Your task to perform on an android device: Empty the shopping cart on bestbuy. Image 0: 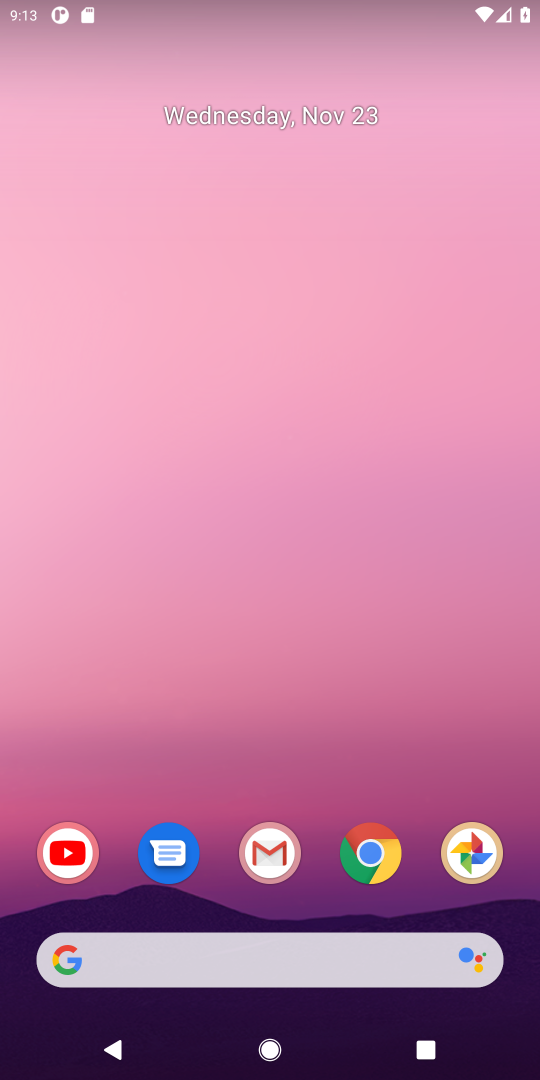
Step 0: click (371, 847)
Your task to perform on an android device: Empty the shopping cart on bestbuy. Image 1: 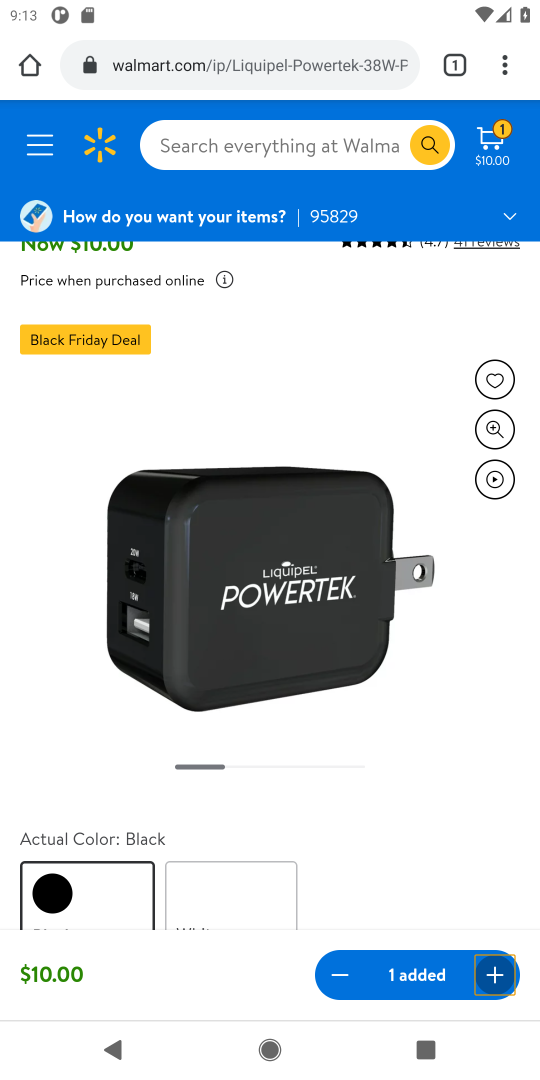
Step 1: click (201, 69)
Your task to perform on an android device: Empty the shopping cart on bestbuy. Image 2: 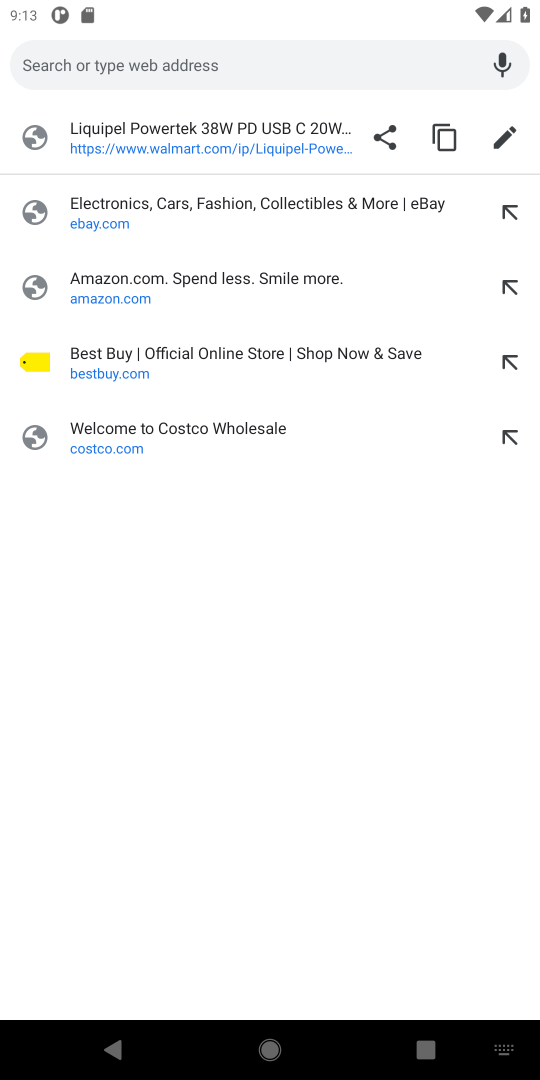
Step 2: click (96, 353)
Your task to perform on an android device: Empty the shopping cart on bestbuy. Image 3: 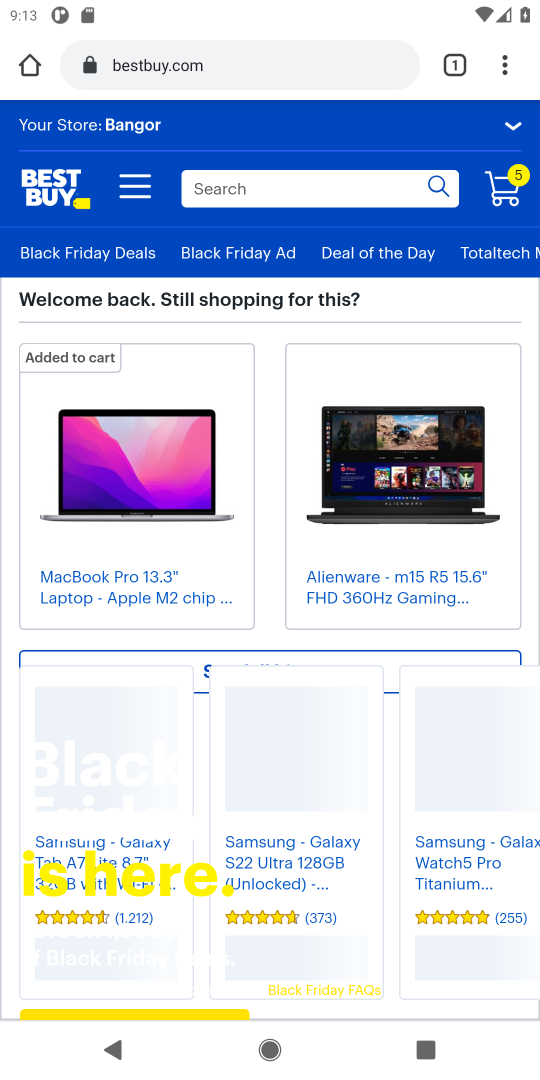
Step 3: click (506, 196)
Your task to perform on an android device: Empty the shopping cart on bestbuy. Image 4: 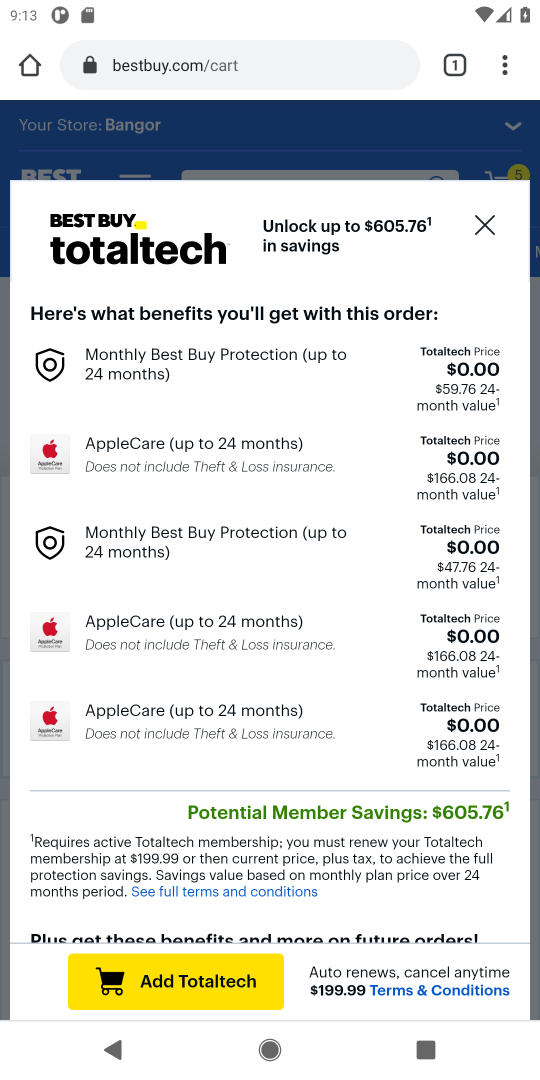
Step 4: click (486, 224)
Your task to perform on an android device: Empty the shopping cart on bestbuy. Image 5: 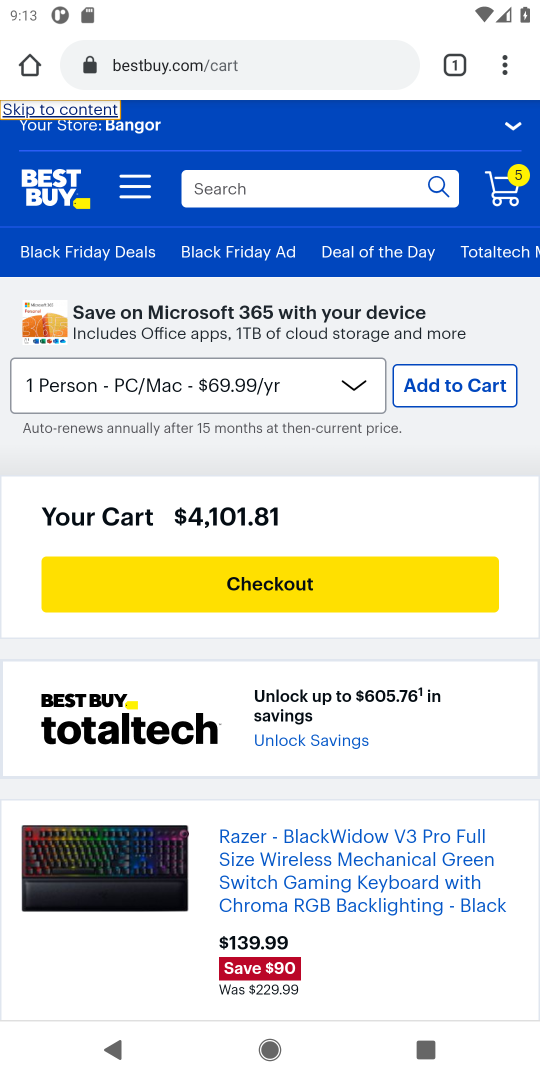
Step 5: drag from (168, 732) to (154, 409)
Your task to perform on an android device: Empty the shopping cart on bestbuy. Image 6: 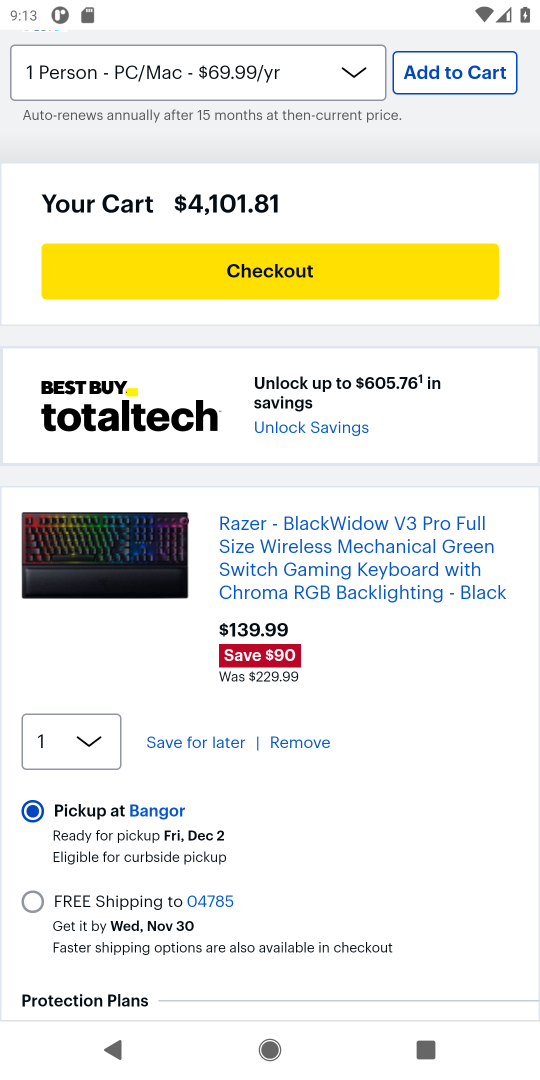
Step 6: click (302, 739)
Your task to perform on an android device: Empty the shopping cart on bestbuy. Image 7: 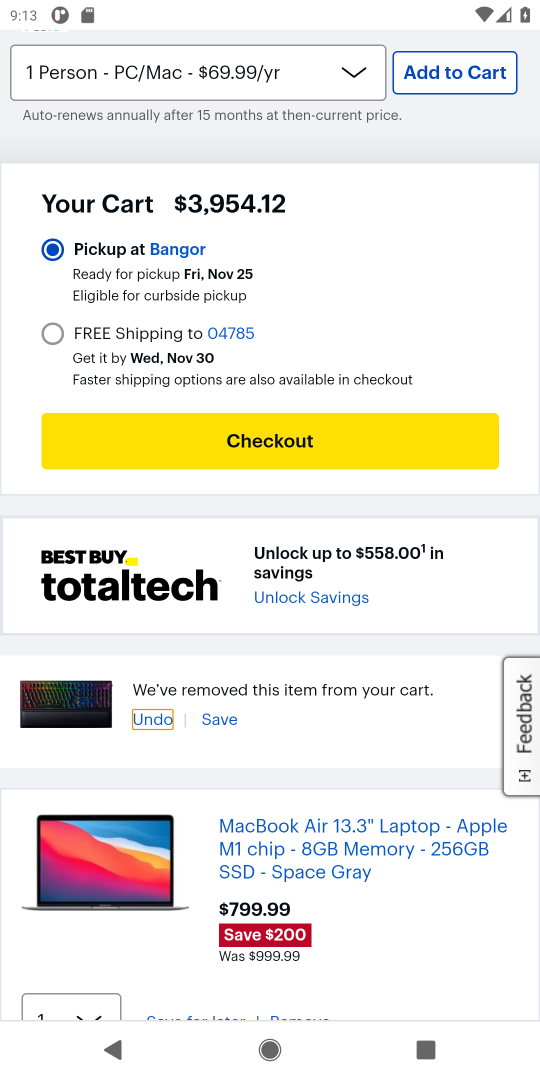
Step 7: drag from (302, 739) to (288, 387)
Your task to perform on an android device: Empty the shopping cart on bestbuy. Image 8: 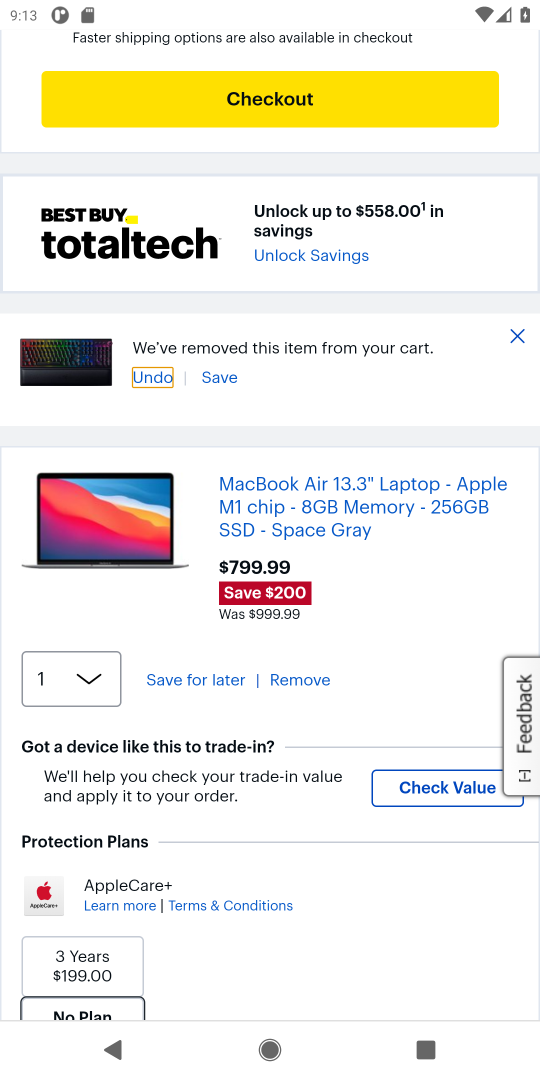
Step 8: click (304, 673)
Your task to perform on an android device: Empty the shopping cart on bestbuy. Image 9: 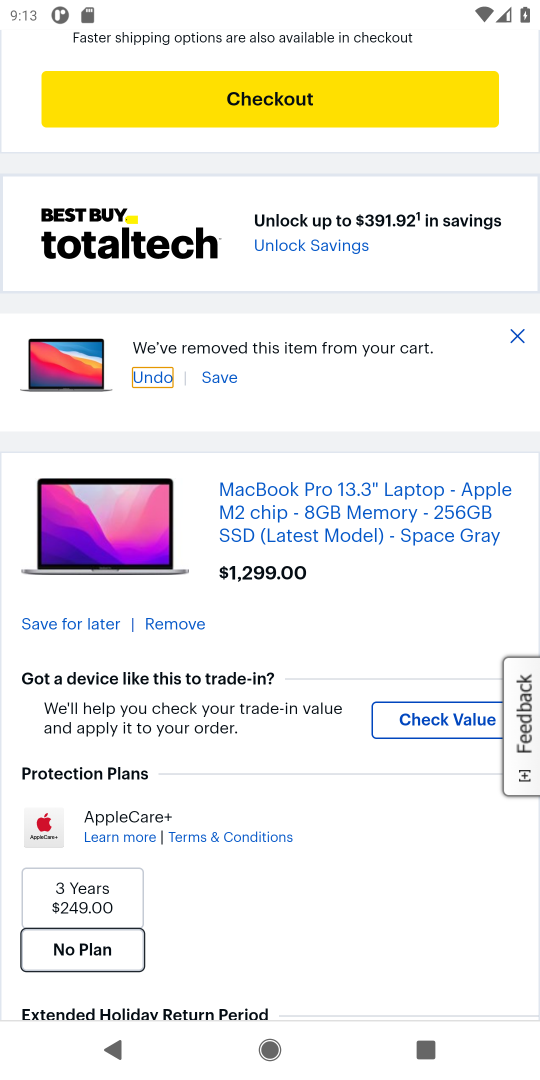
Step 9: drag from (207, 749) to (205, 590)
Your task to perform on an android device: Empty the shopping cart on bestbuy. Image 10: 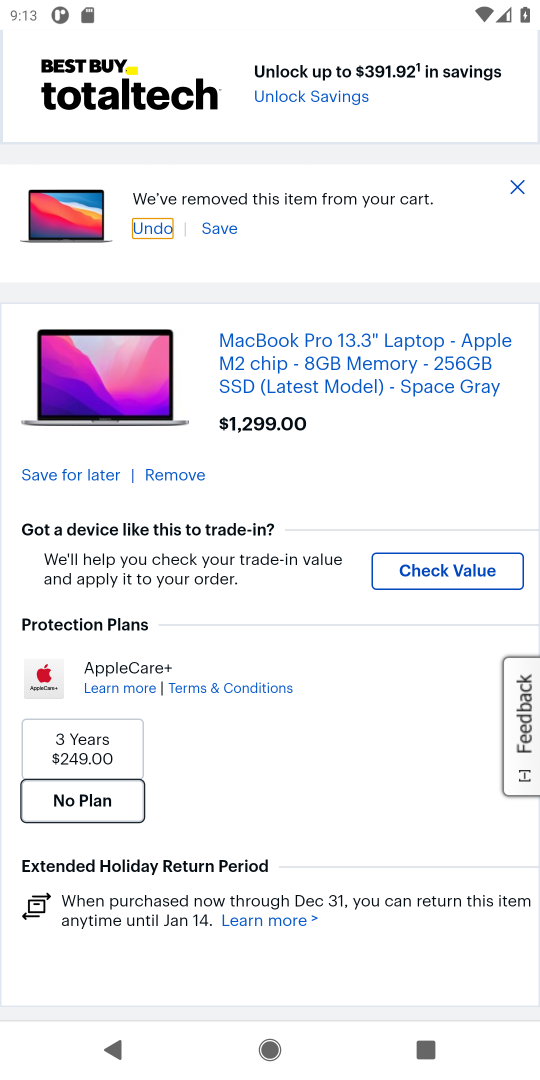
Step 10: click (163, 474)
Your task to perform on an android device: Empty the shopping cart on bestbuy. Image 11: 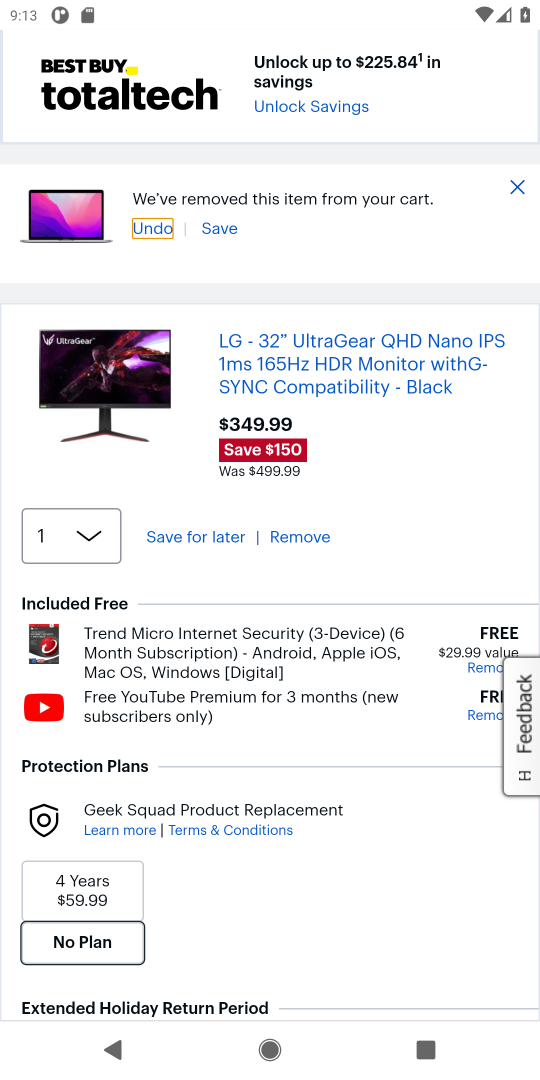
Step 11: click (300, 533)
Your task to perform on an android device: Empty the shopping cart on bestbuy. Image 12: 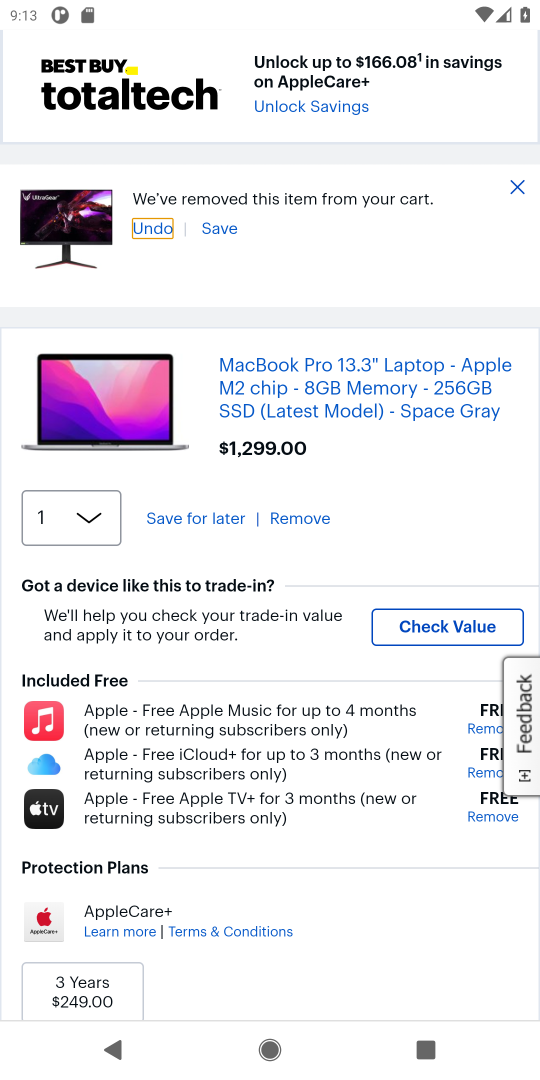
Step 12: click (298, 522)
Your task to perform on an android device: Empty the shopping cart on bestbuy. Image 13: 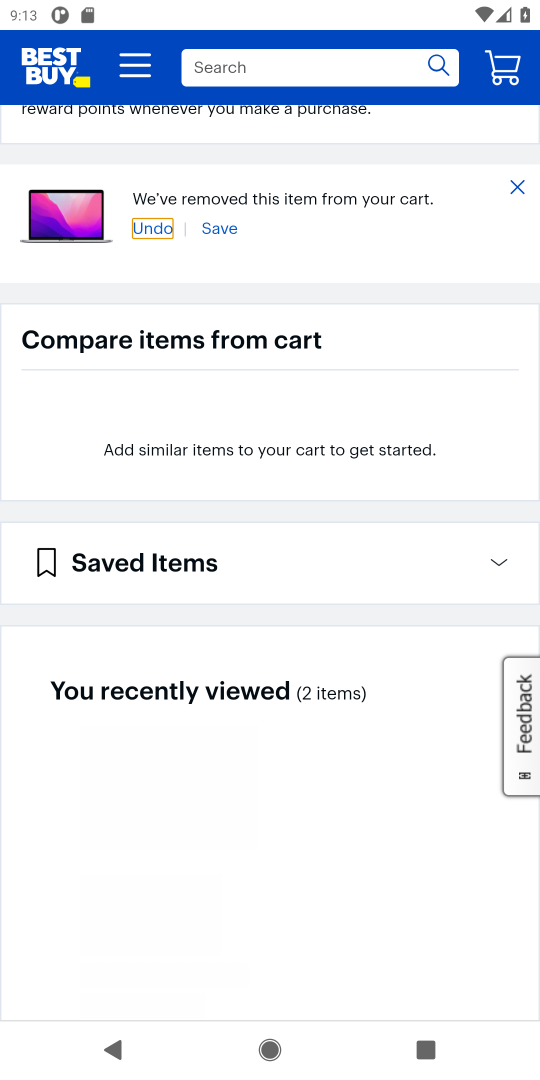
Step 13: task complete